Your task to perform on an android device: When is my next meeting? Image 0: 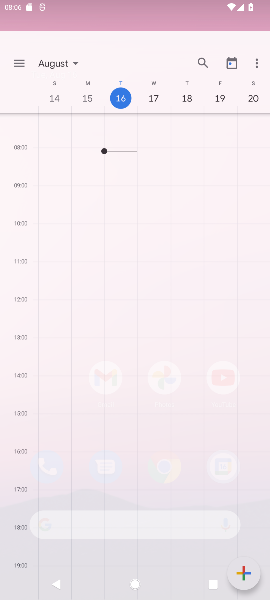
Step 0: press home button
Your task to perform on an android device: When is my next meeting? Image 1: 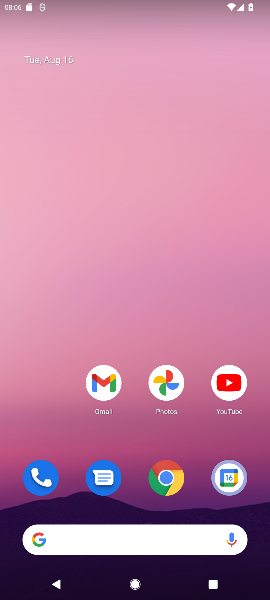
Step 1: click (230, 474)
Your task to perform on an android device: When is my next meeting? Image 2: 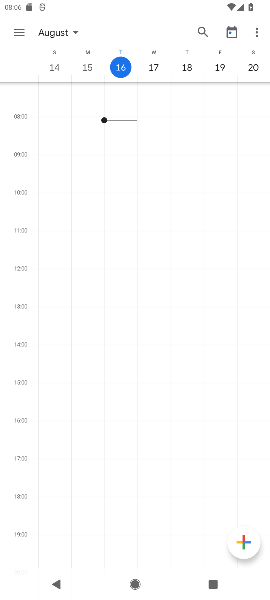
Step 2: click (122, 64)
Your task to perform on an android device: When is my next meeting? Image 3: 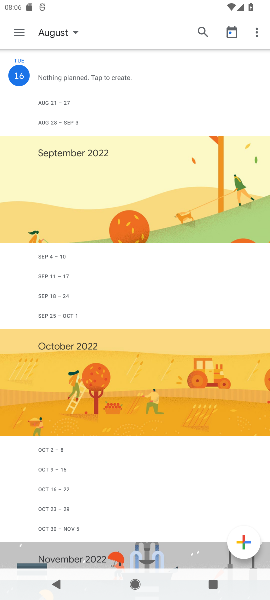
Step 3: task complete